Your task to perform on an android device: Set the phone to "Do not disturb". Image 0: 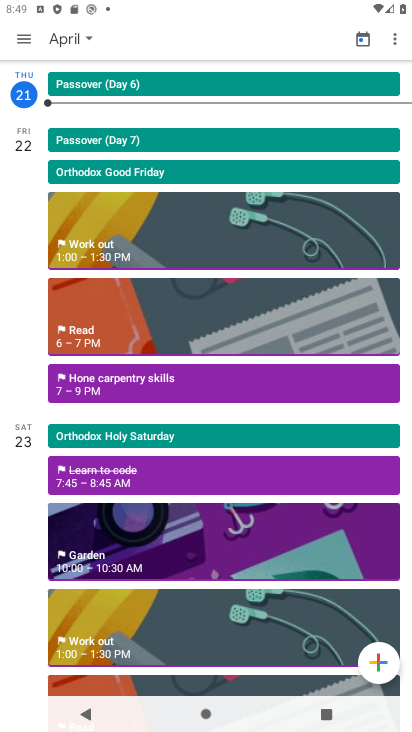
Step 0: drag from (254, 7) to (200, 377)
Your task to perform on an android device: Set the phone to "Do not disturb". Image 1: 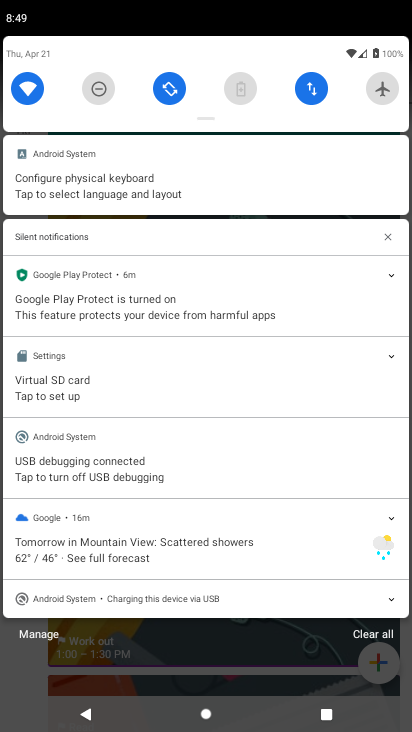
Step 1: click (106, 93)
Your task to perform on an android device: Set the phone to "Do not disturb". Image 2: 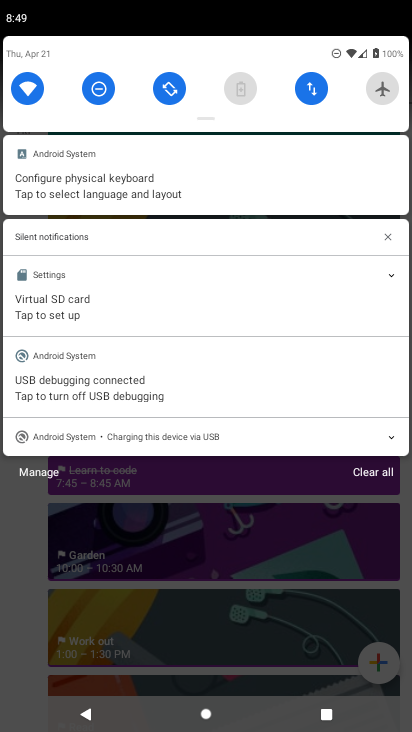
Step 2: task complete